Your task to perform on an android device: turn off sleep mode Image 0: 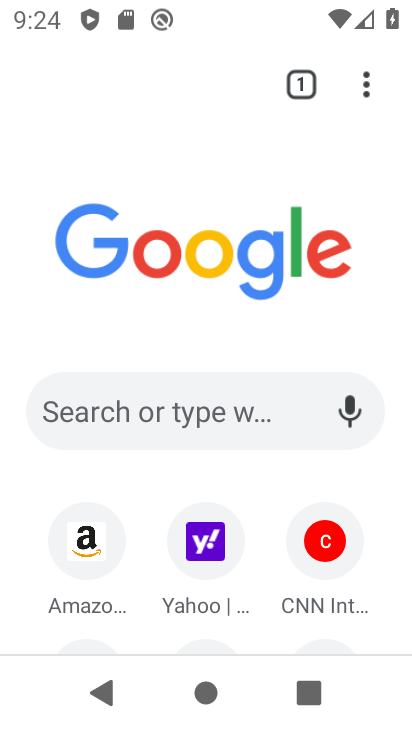
Step 0: press home button
Your task to perform on an android device: turn off sleep mode Image 1: 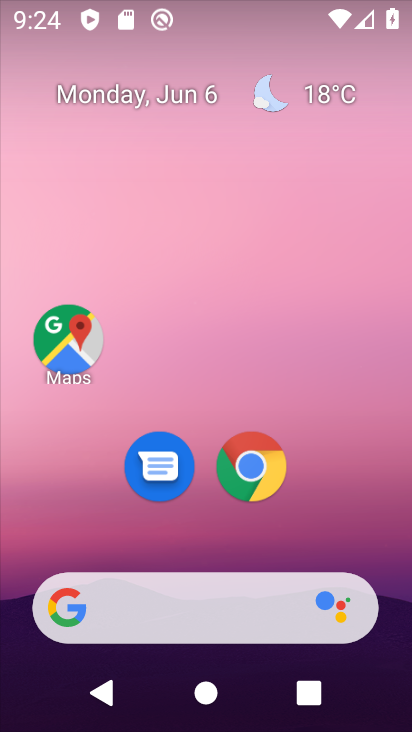
Step 1: drag from (207, 562) to (256, 80)
Your task to perform on an android device: turn off sleep mode Image 2: 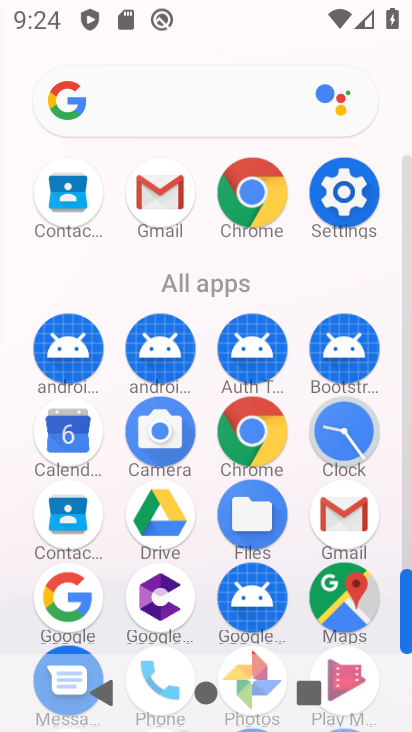
Step 2: click (341, 190)
Your task to perform on an android device: turn off sleep mode Image 3: 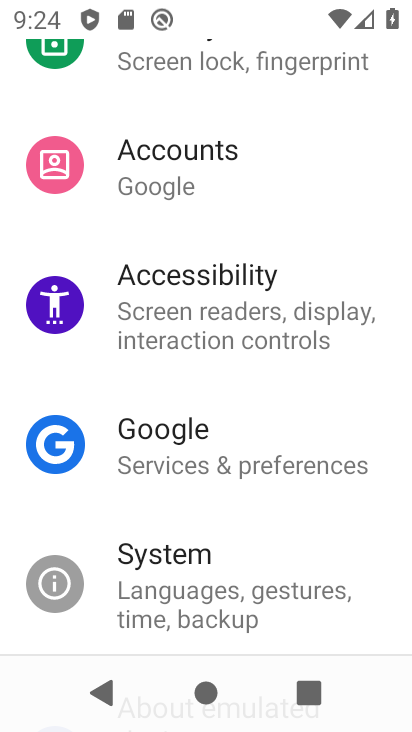
Step 3: task complete